Your task to perform on an android device: Go to privacy settings Image 0: 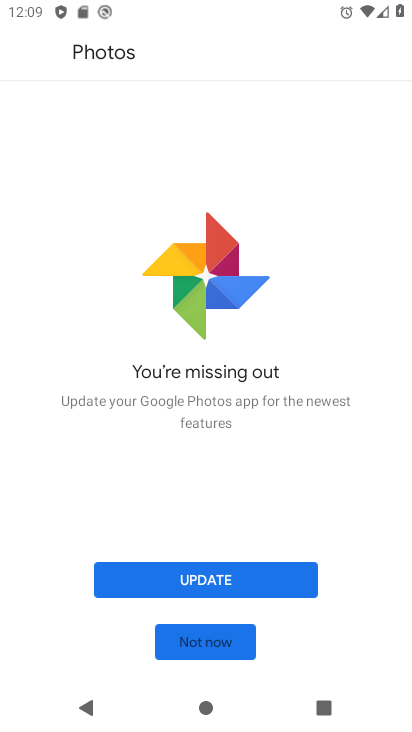
Step 0: press home button
Your task to perform on an android device: Go to privacy settings Image 1: 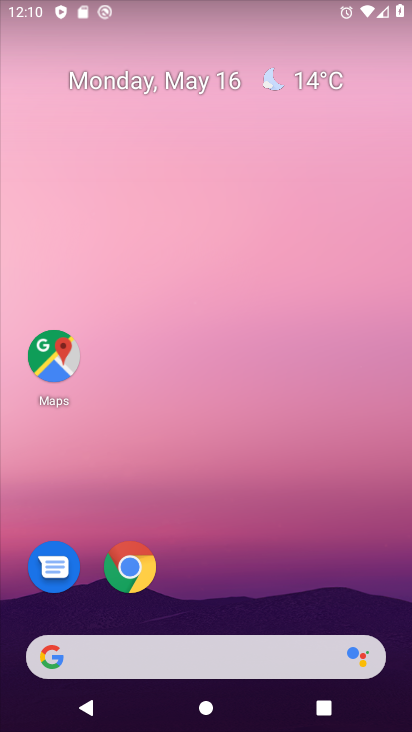
Step 1: drag from (226, 594) to (217, 113)
Your task to perform on an android device: Go to privacy settings Image 2: 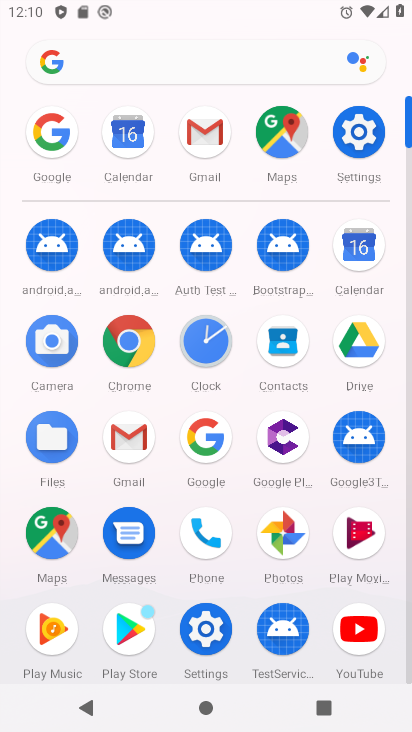
Step 2: click (358, 128)
Your task to perform on an android device: Go to privacy settings Image 3: 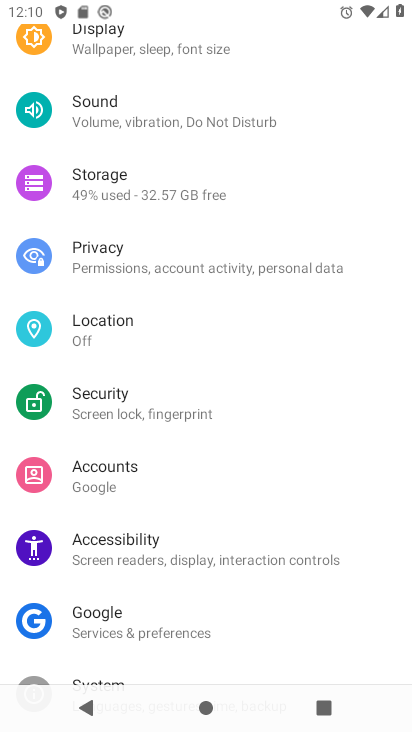
Step 3: click (112, 265)
Your task to perform on an android device: Go to privacy settings Image 4: 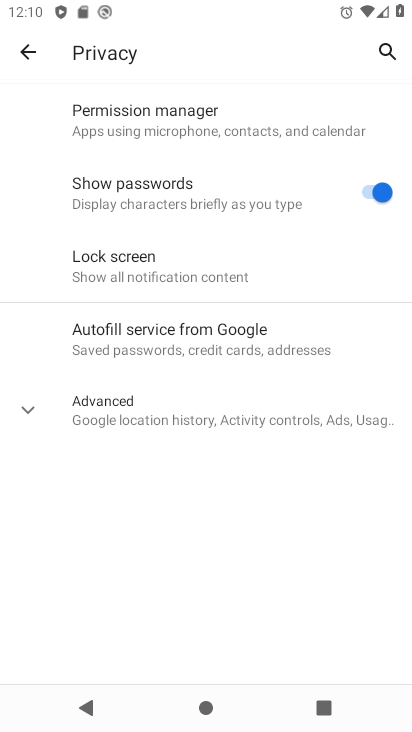
Step 4: task complete